Your task to perform on an android device: Open settings on Google Maps Image 0: 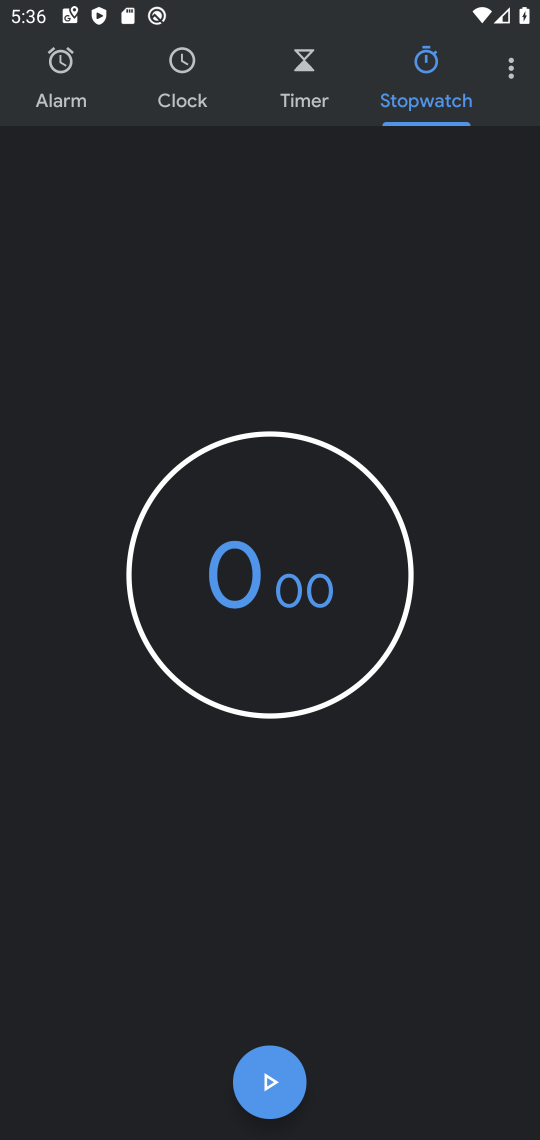
Step 0: press home button
Your task to perform on an android device: Open settings on Google Maps Image 1: 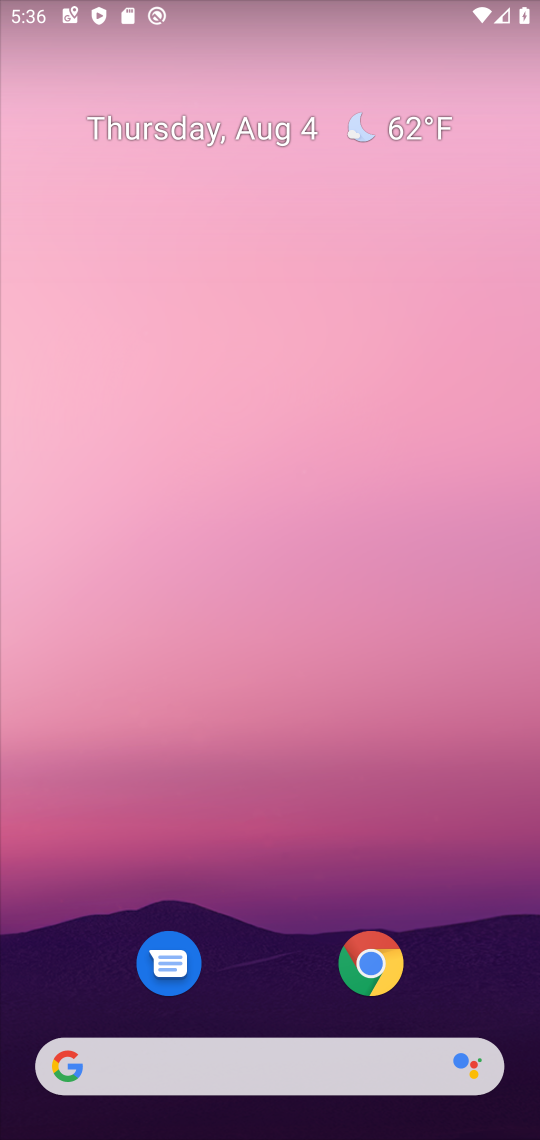
Step 1: click (273, 724)
Your task to perform on an android device: Open settings on Google Maps Image 2: 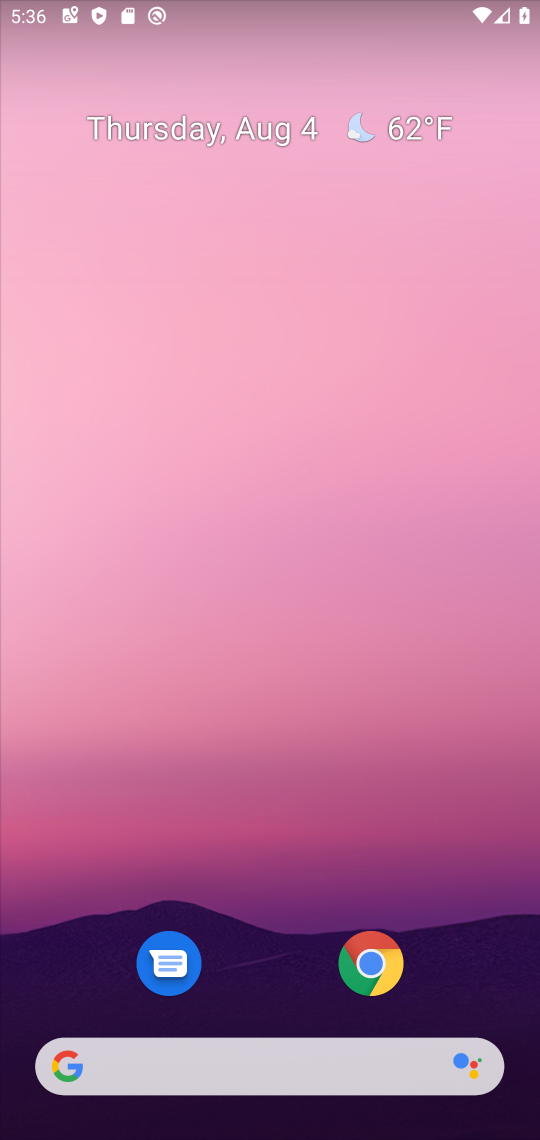
Step 2: click (251, 318)
Your task to perform on an android device: Open settings on Google Maps Image 3: 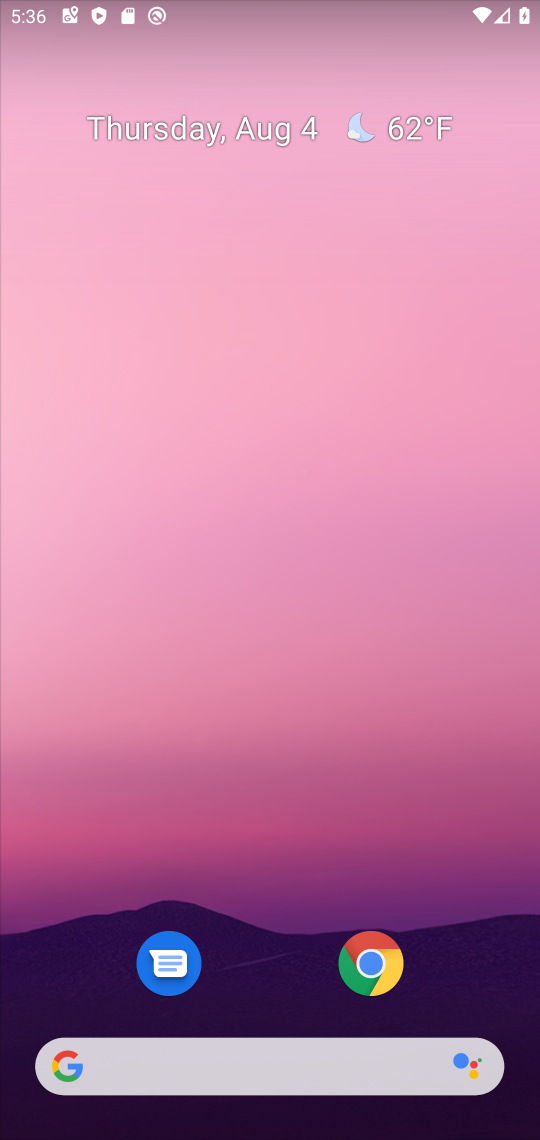
Step 3: drag from (253, 809) to (363, 65)
Your task to perform on an android device: Open settings on Google Maps Image 4: 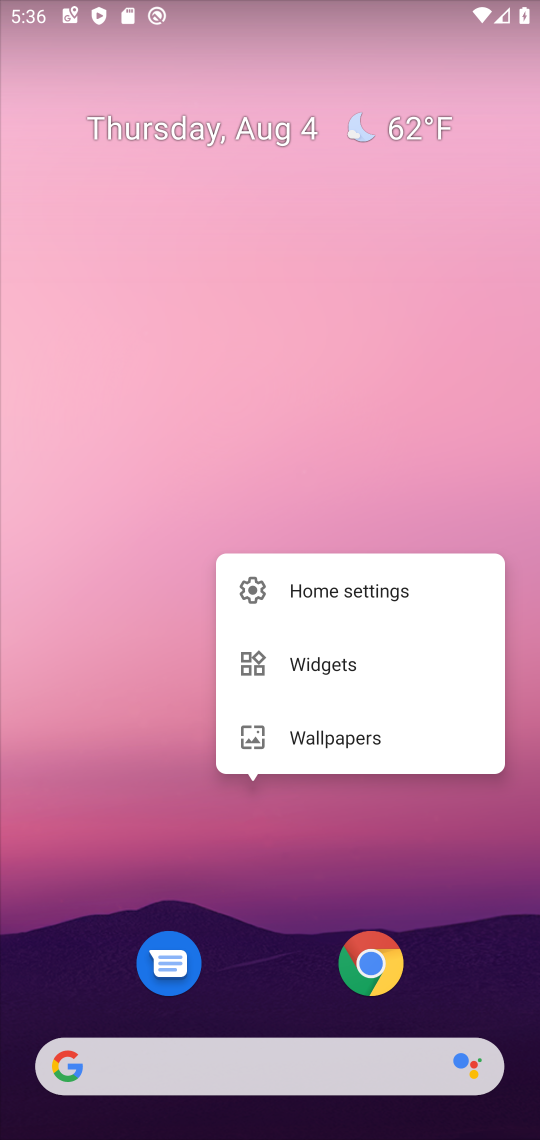
Step 4: click (307, 801)
Your task to perform on an android device: Open settings on Google Maps Image 5: 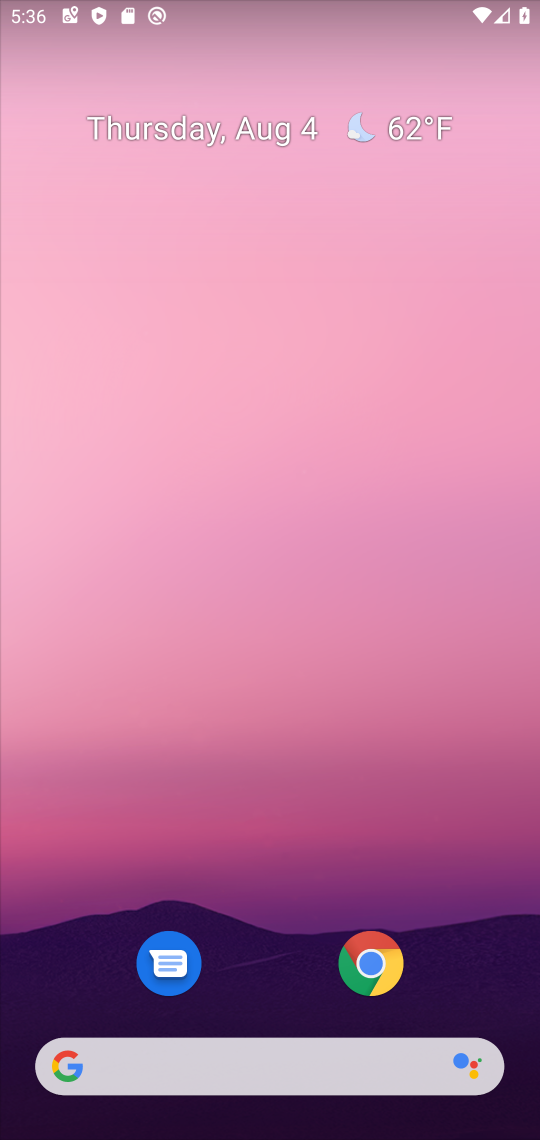
Step 5: drag from (279, 801) to (261, 2)
Your task to perform on an android device: Open settings on Google Maps Image 6: 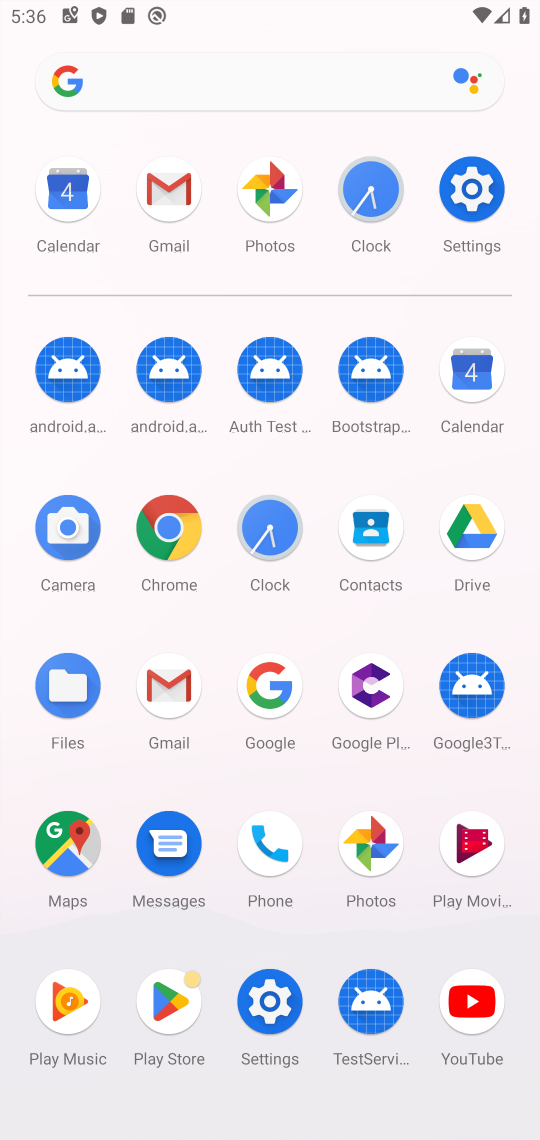
Step 6: click (68, 842)
Your task to perform on an android device: Open settings on Google Maps Image 7: 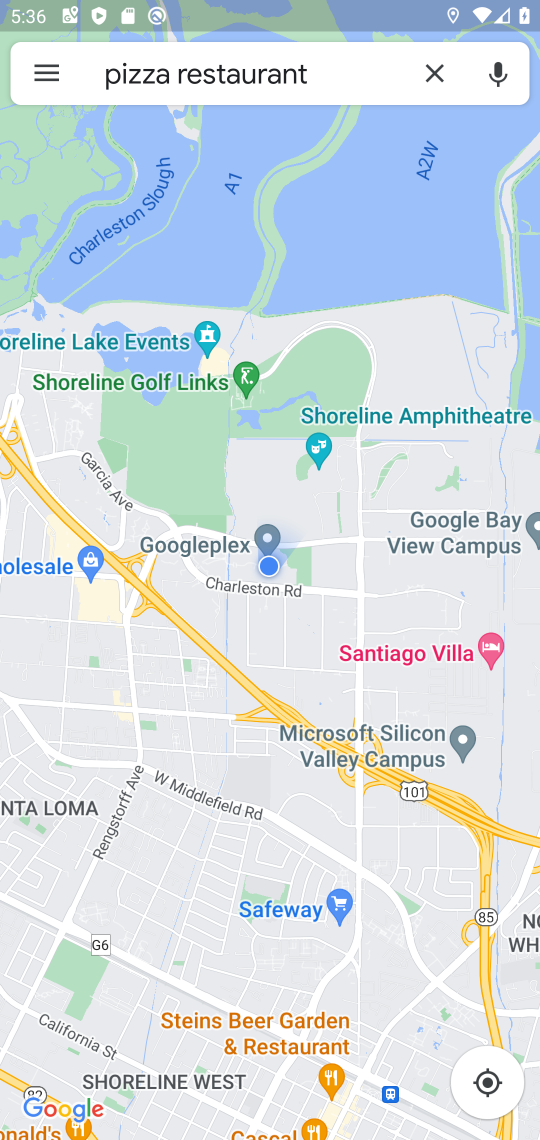
Step 7: click (50, 72)
Your task to perform on an android device: Open settings on Google Maps Image 8: 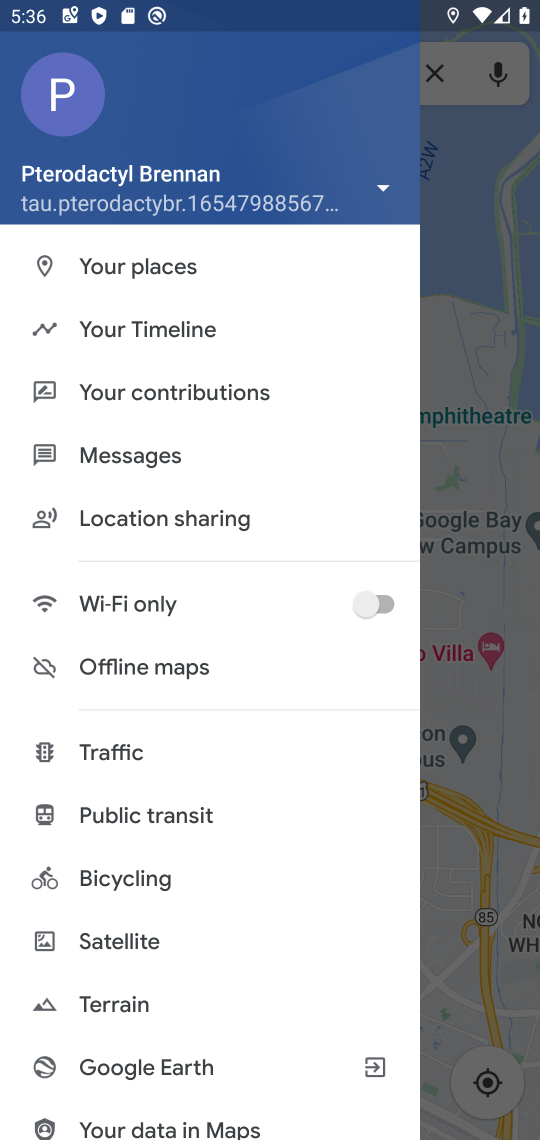
Step 8: drag from (251, 988) to (251, 475)
Your task to perform on an android device: Open settings on Google Maps Image 9: 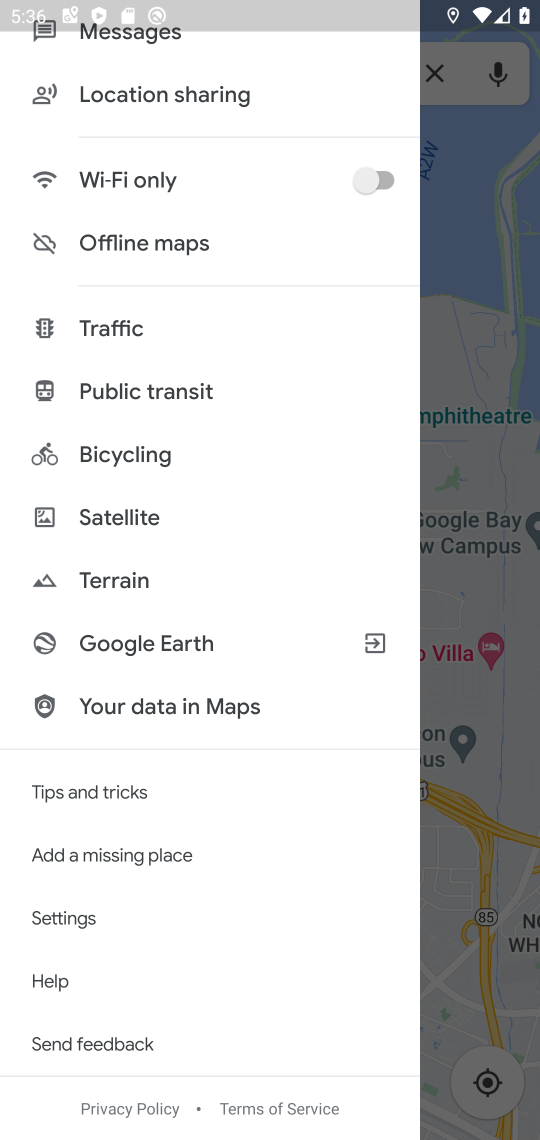
Step 9: click (57, 919)
Your task to perform on an android device: Open settings on Google Maps Image 10: 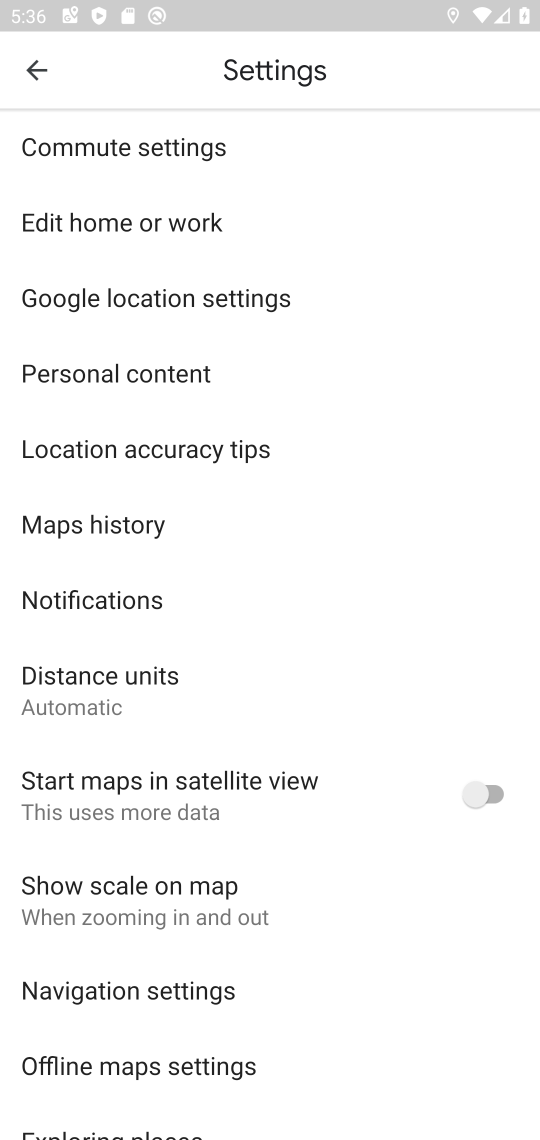
Step 10: task complete